Your task to perform on an android device: open app "AliExpress" (install if not already installed) Image 0: 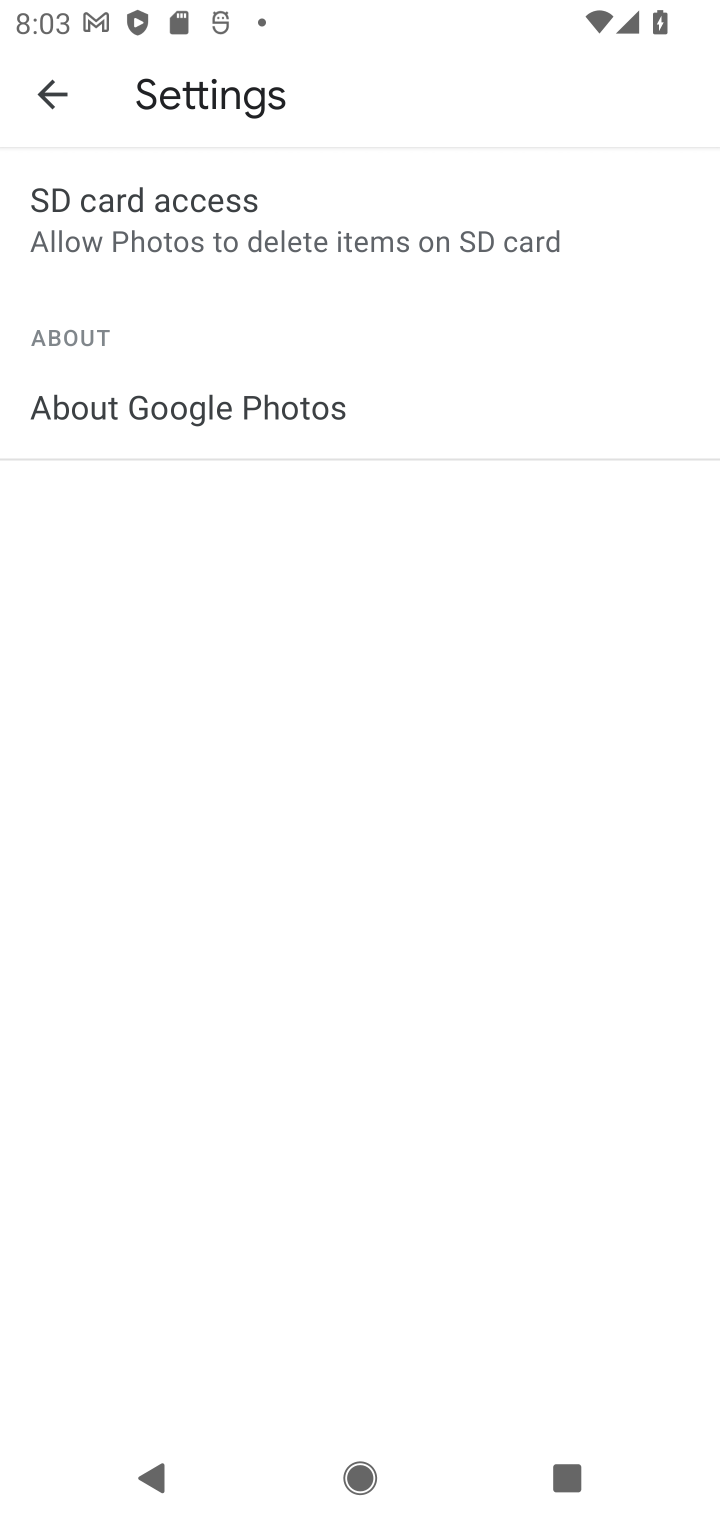
Step 0: press back button
Your task to perform on an android device: open app "AliExpress" (install if not already installed) Image 1: 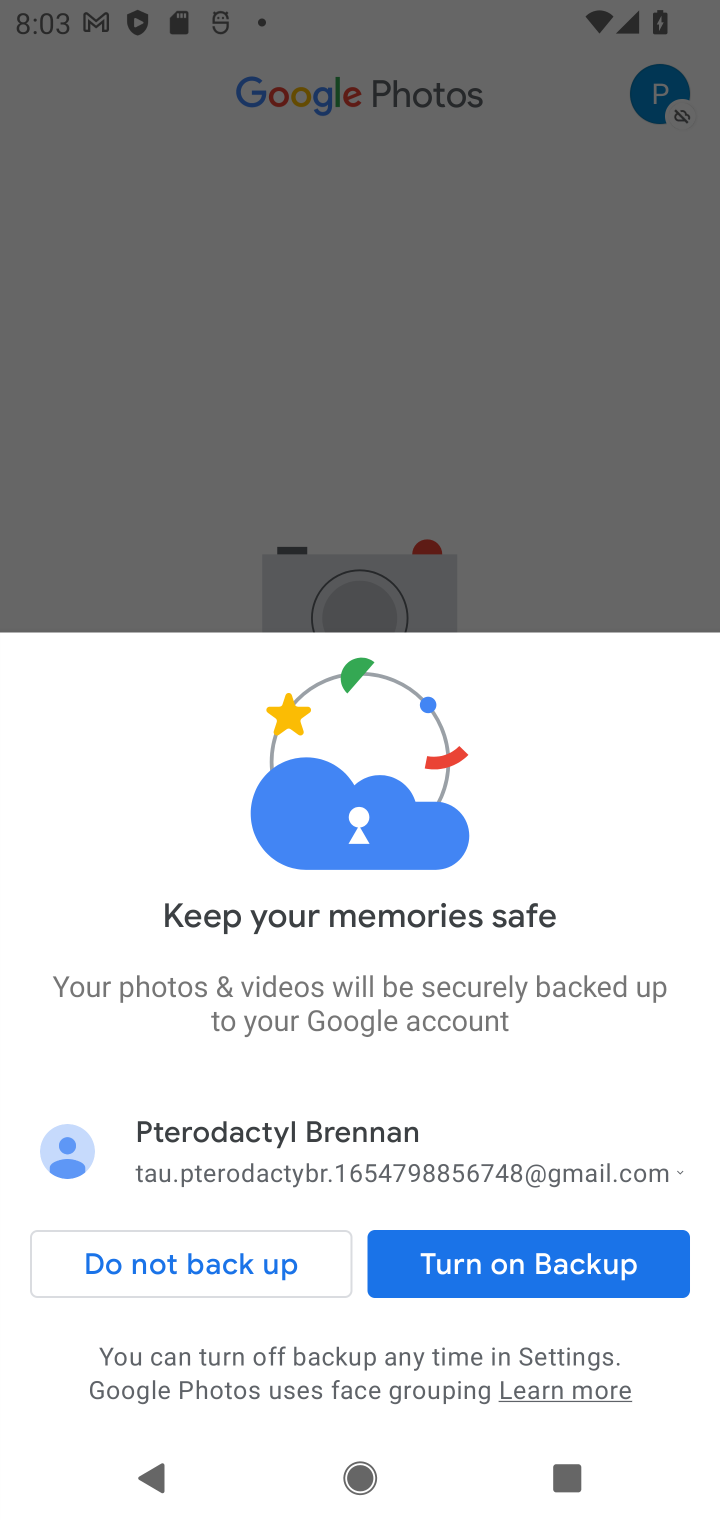
Step 1: press back button
Your task to perform on an android device: open app "AliExpress" (install if not already installed) Image 2: 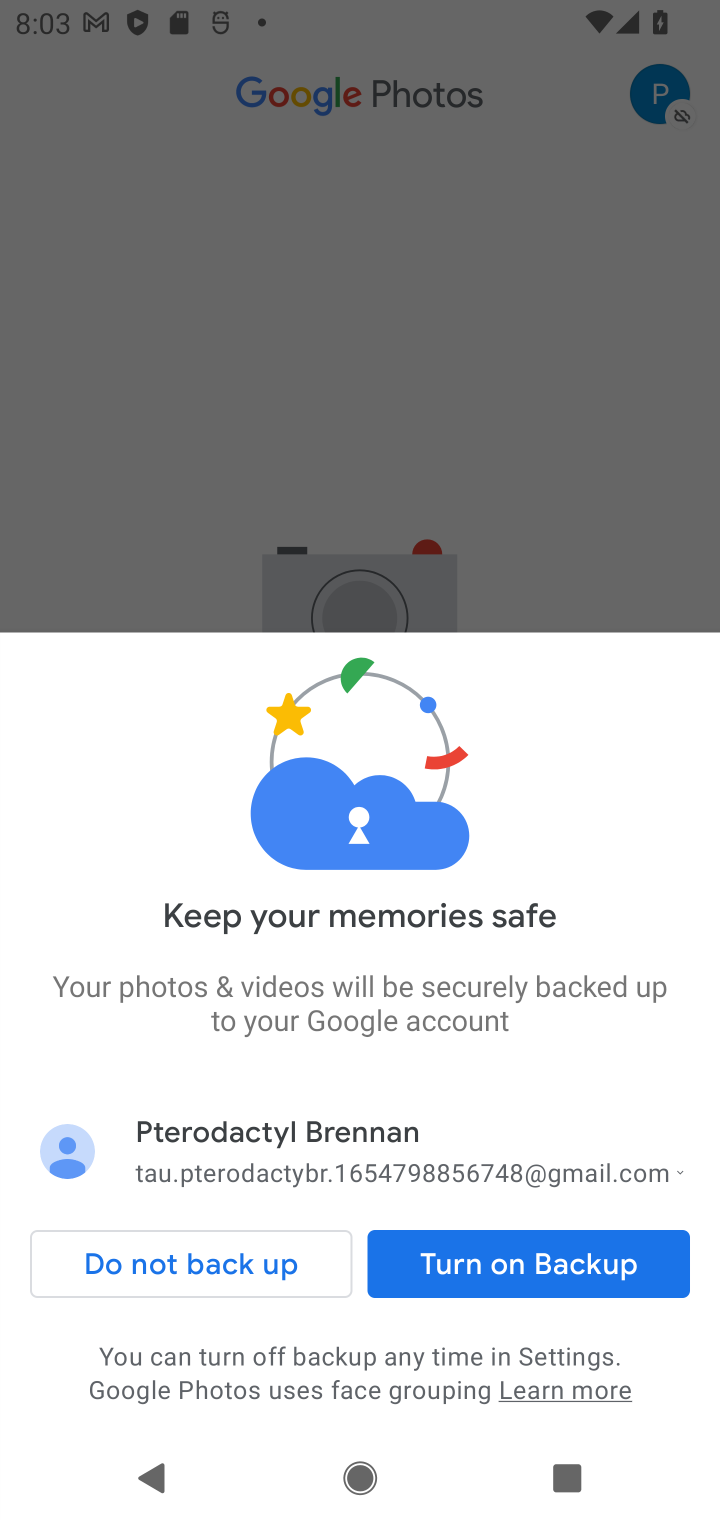
Step 2: press home button
Your task to perform on an android device: open app "AliExpress" (install if not already installed) Image 3: 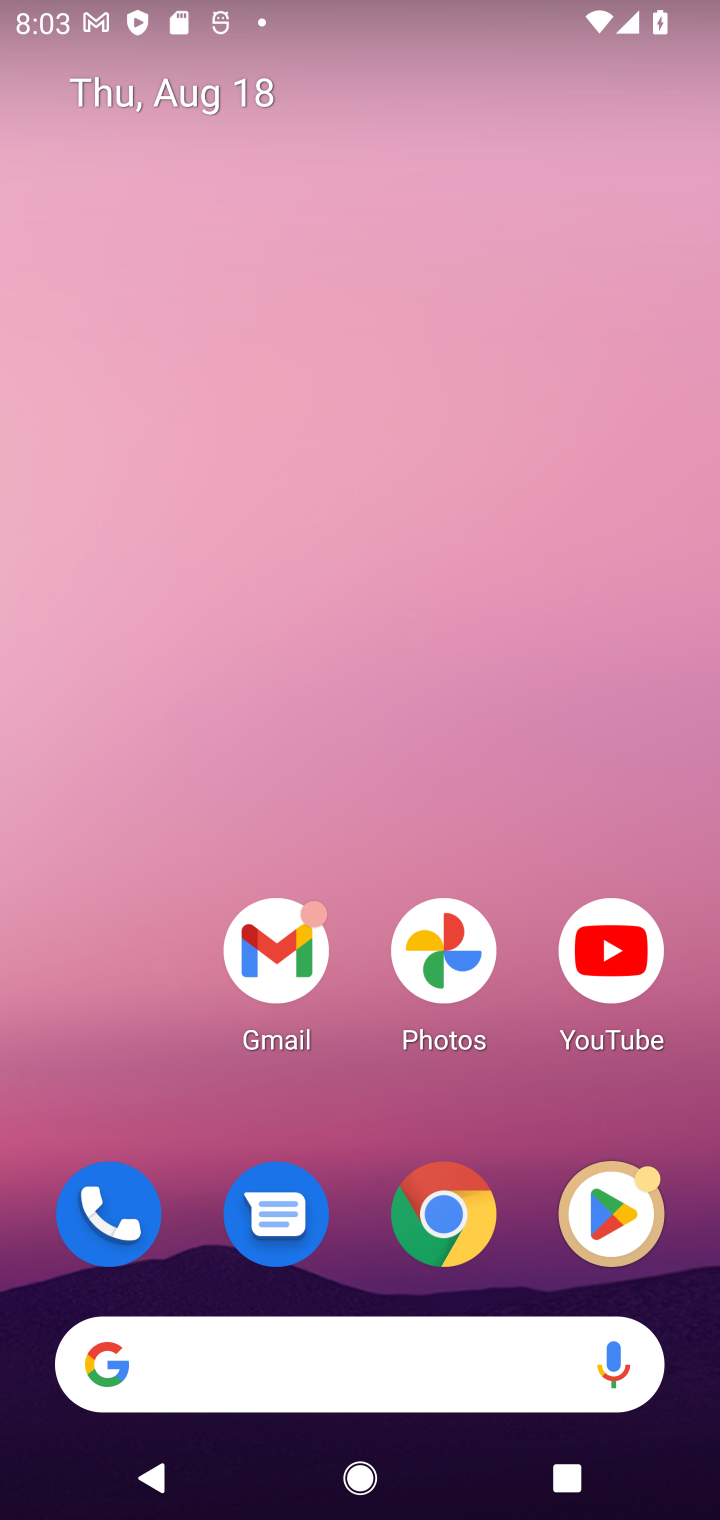
Step 3: click (612, 1210)
Your task to perform on an android device: open app "AliExpress" (install if not already installed) Image 4: 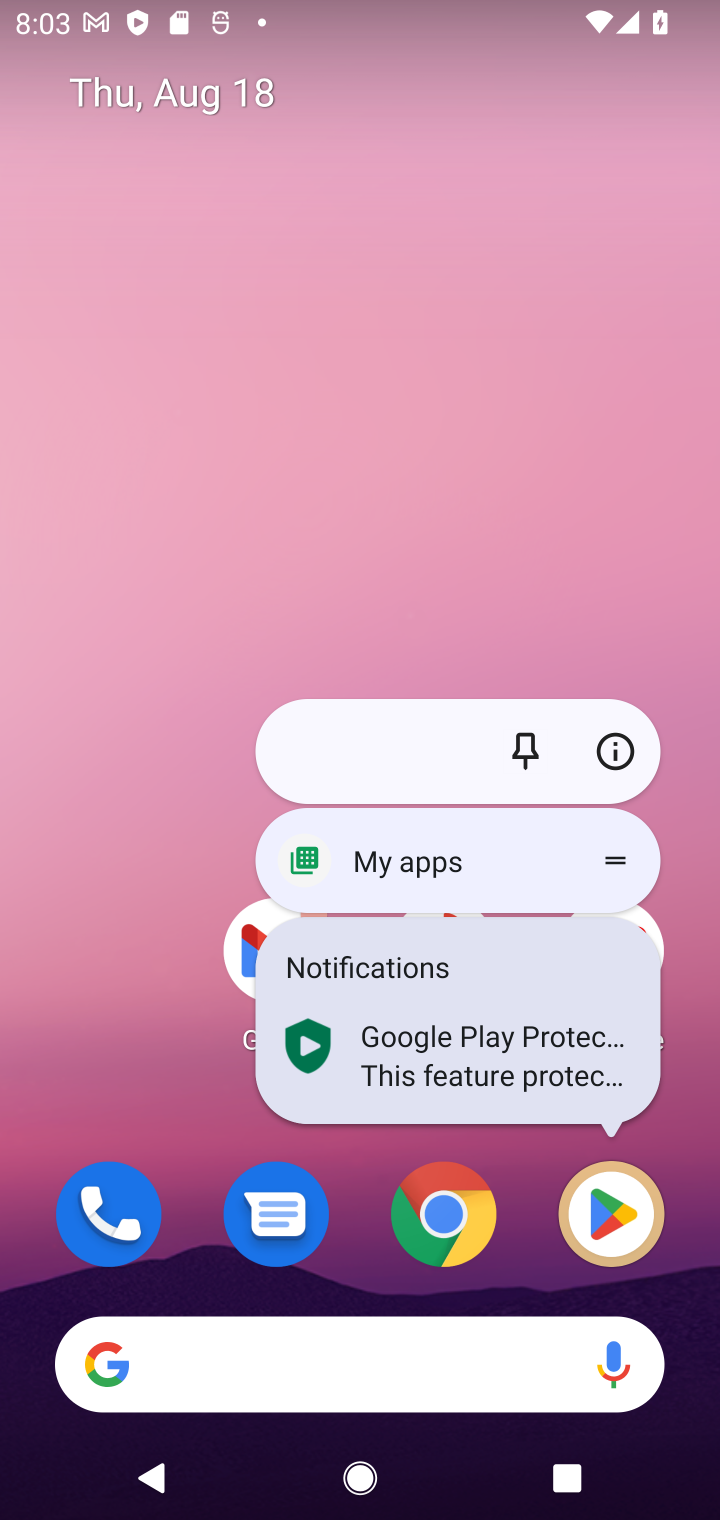
Step 4: click (622, 1204)
Your task to perform on an android device: open app "AliExpress" (install if not already installed) Image 5: 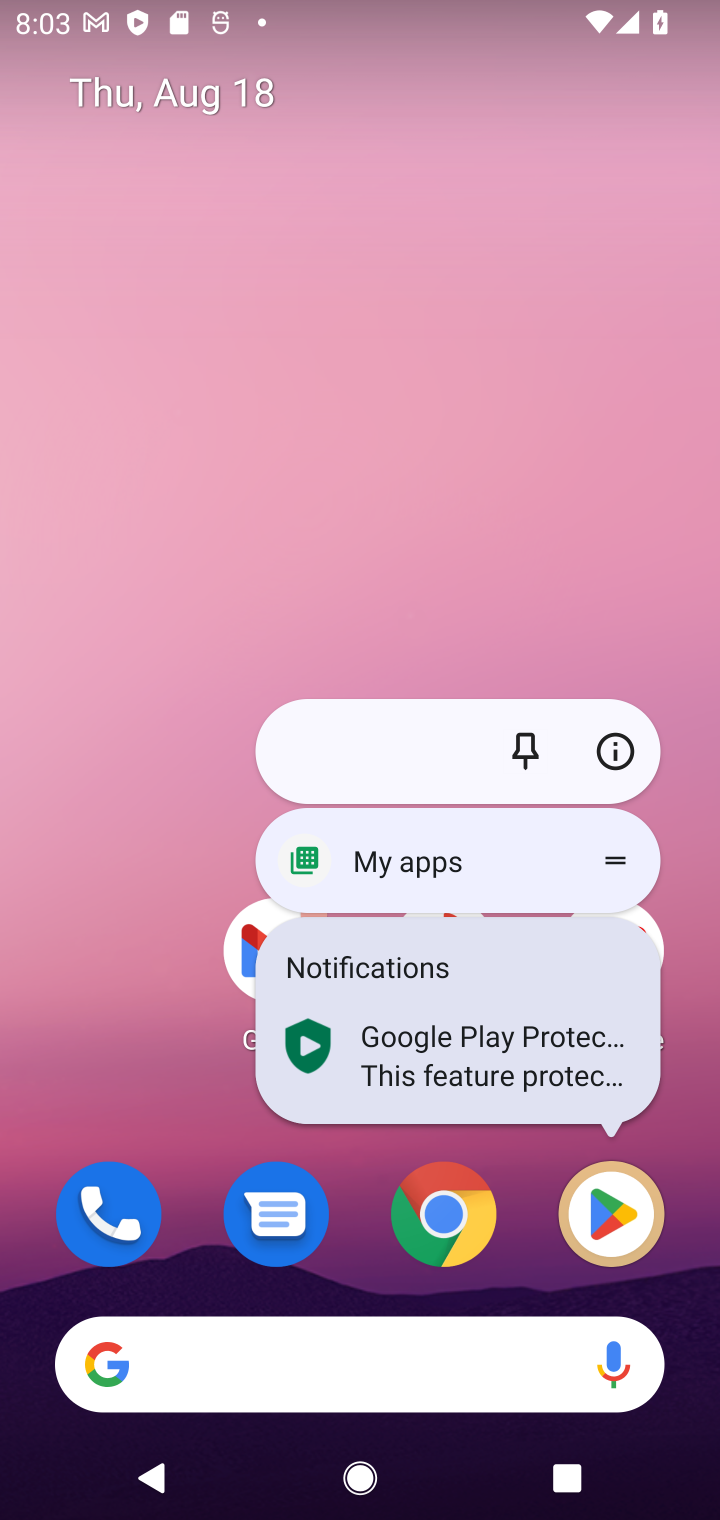
Step 5: click (622, 1202)
Your task to perform on an android device: open app "AliExpress" (install if not already installed) Image 6: 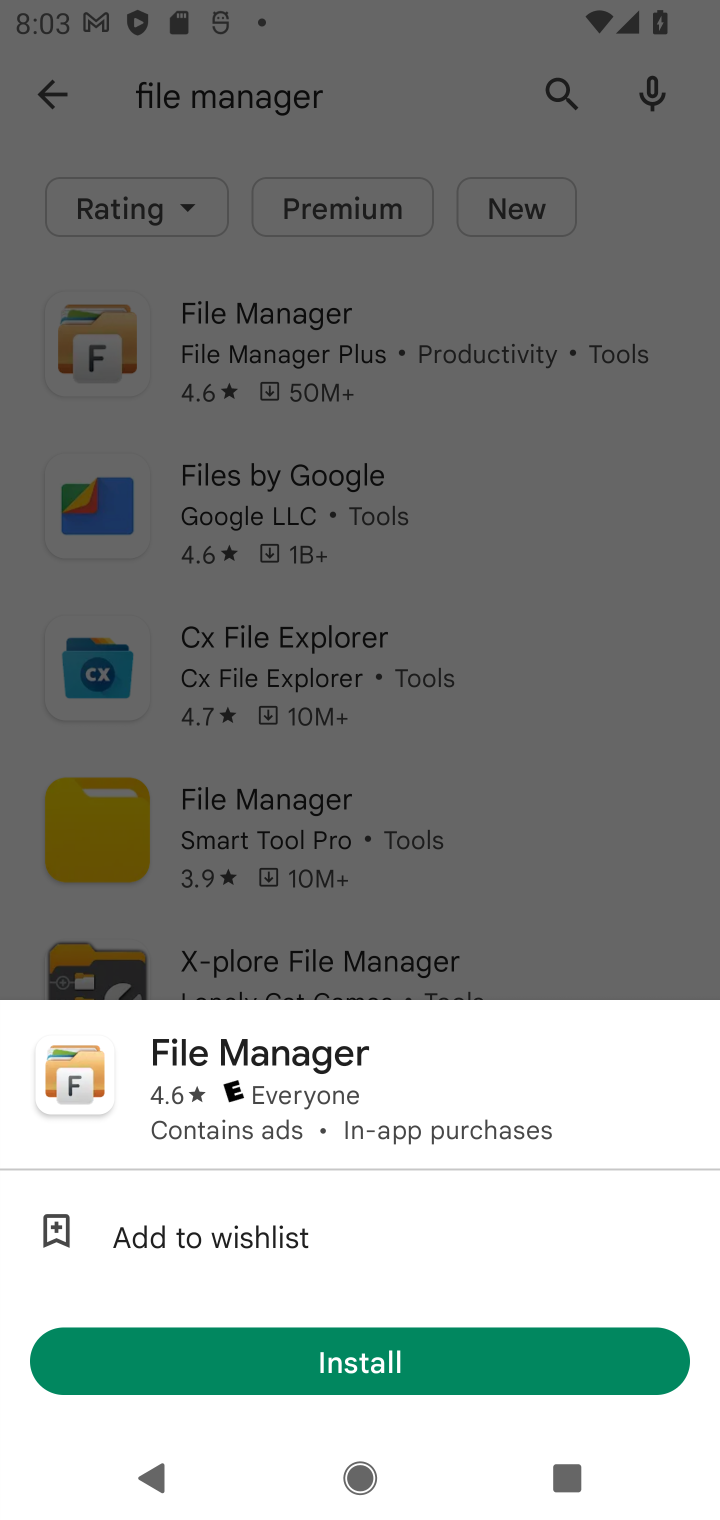
Step 6: click (490, 830)
Your task to perform on an android device: open app "AliExpress" (install if not already installed) Image 7: 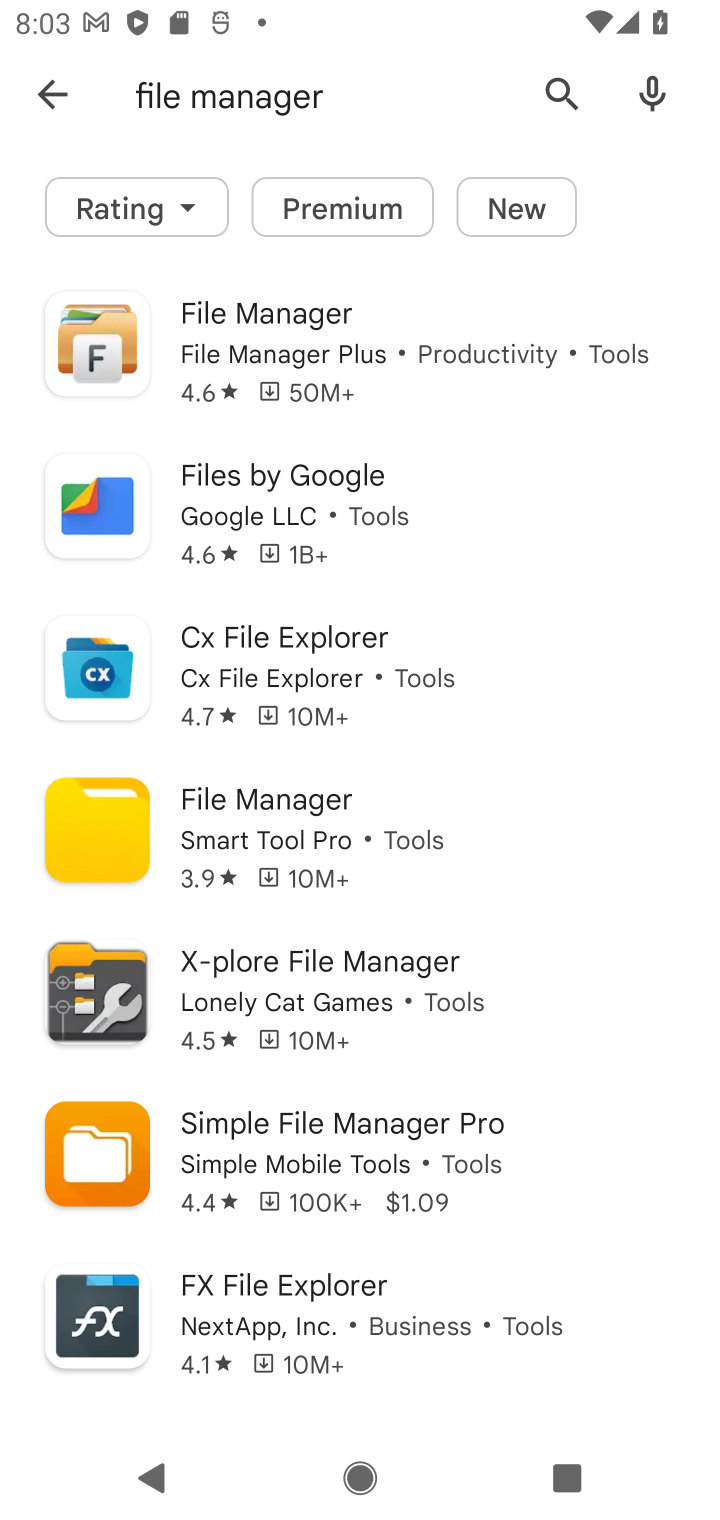
Step 7: click (556, 103)
Your task to perform on an android device: open app "AliExpress" (install if not already installed) Image 8: 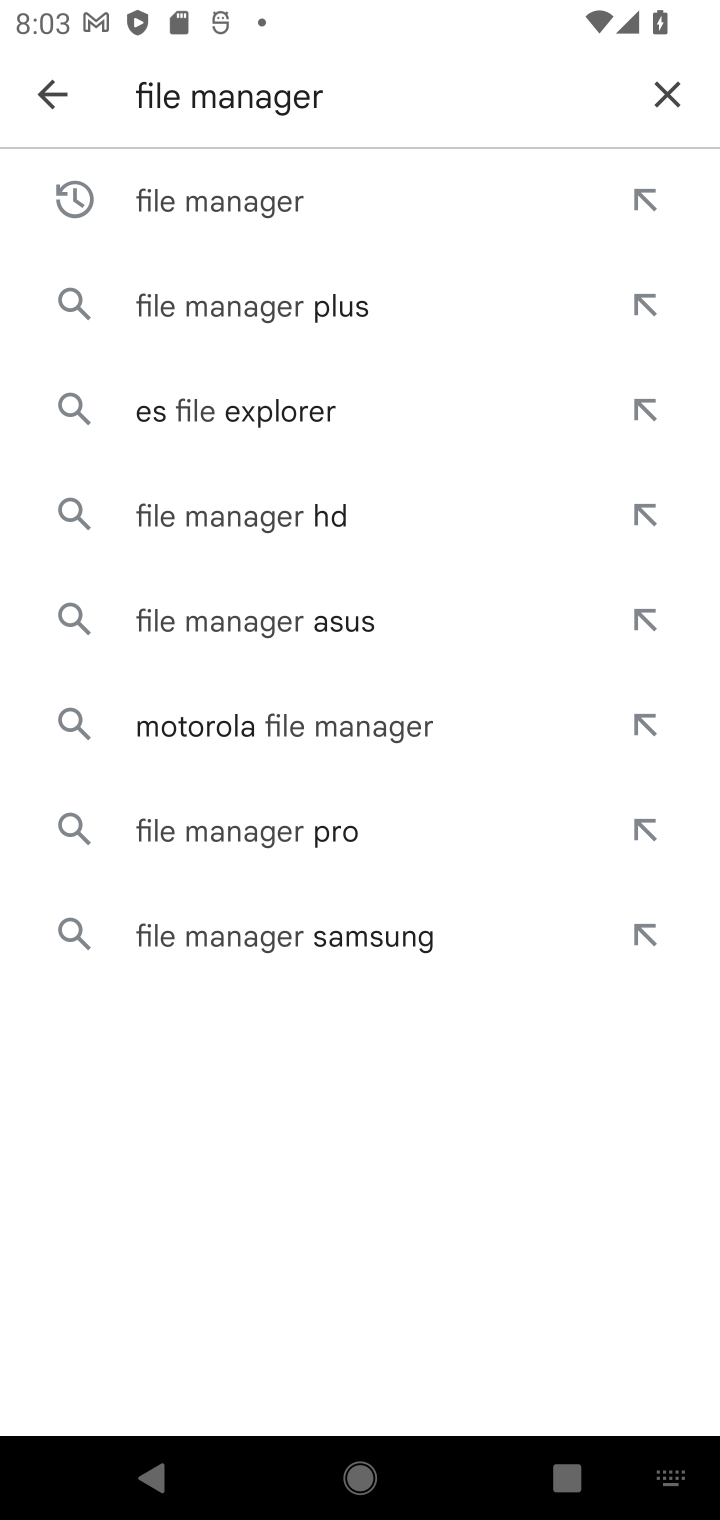
Step 8: click (685, 96)
Your task to perform on an android device: open app "AliExpress" (install if not already installed) Image 9: 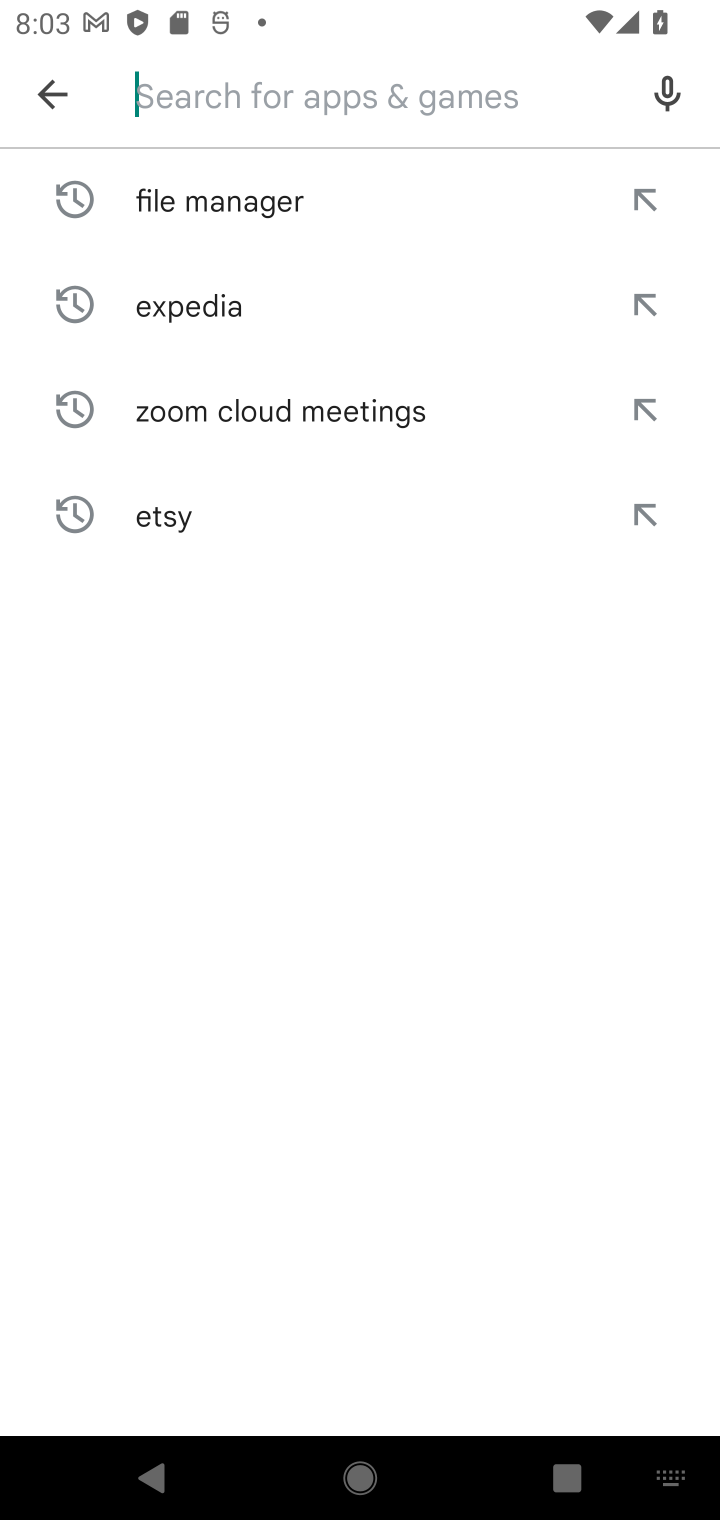
Step 9: click (285, 110)
Your task to perform on an android device: open app "AliExpress" (install if not already installed) Image 10: 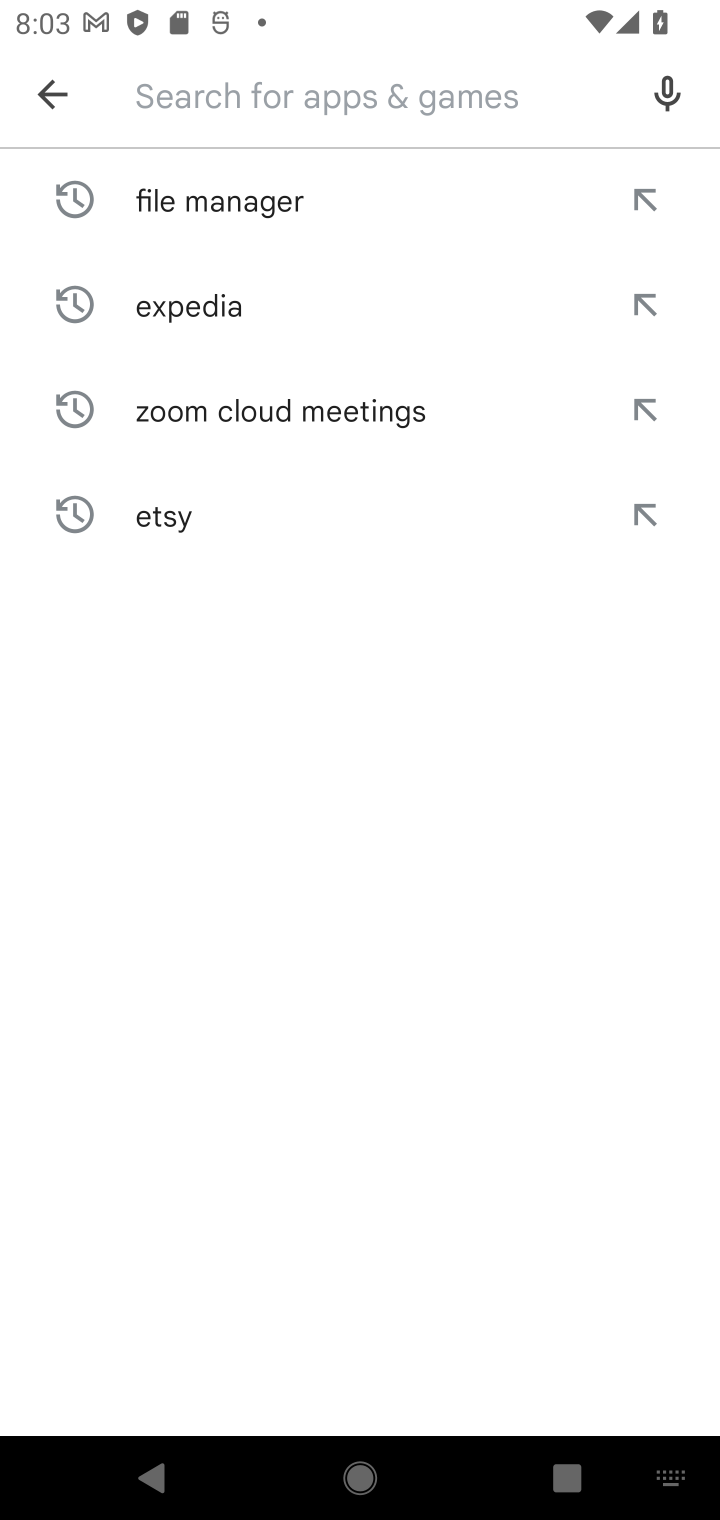
Step 10: type "aliexpress"
Your task to perform on an android device: open app "AliExpress" (install if not already installed) Image 11: 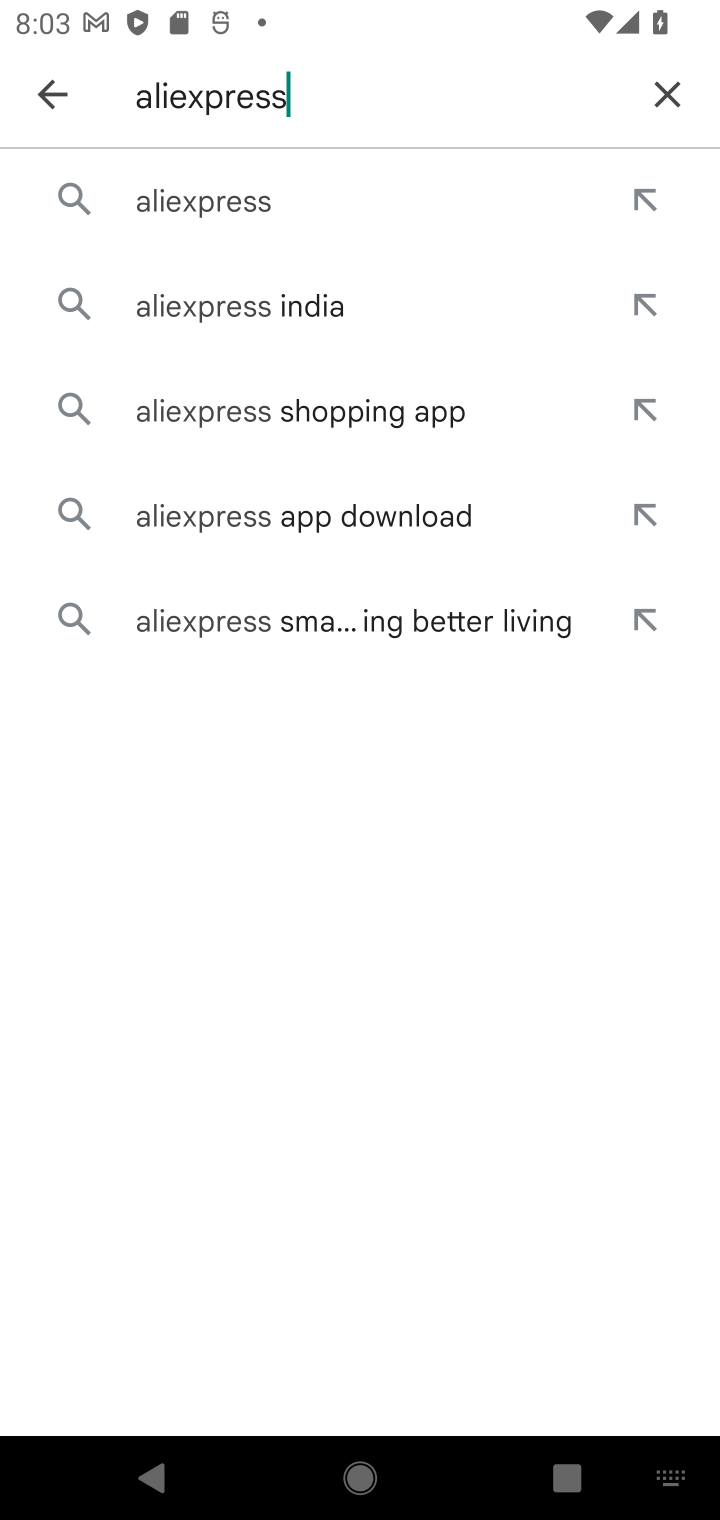
Step 11: click (205, 187)
Your task to perform on an android device: open app "AliExpress" (install if not already installed) Image 12: 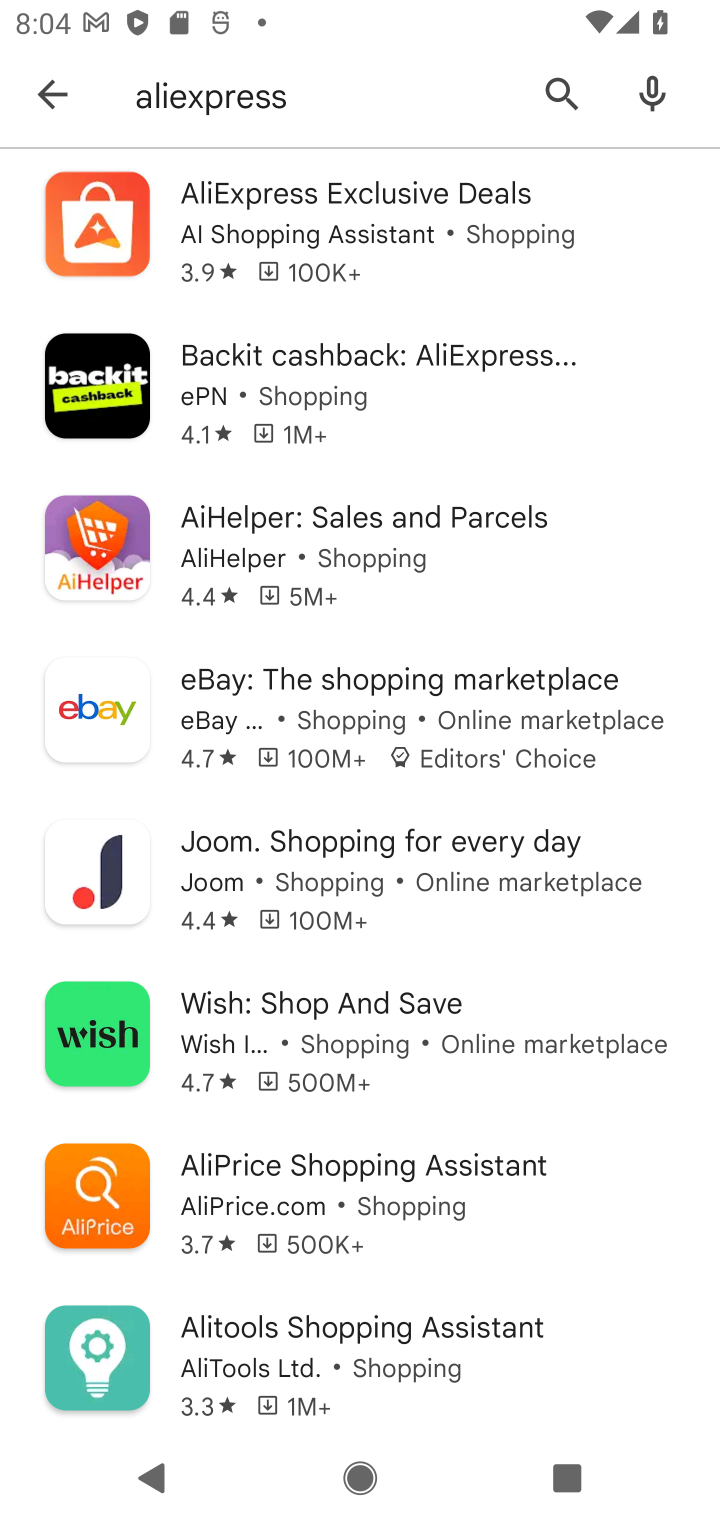
Step 12: click (335, 252)
Your task to perform on an android device: open app "AliExpress" (install if not already installed) Image 13: 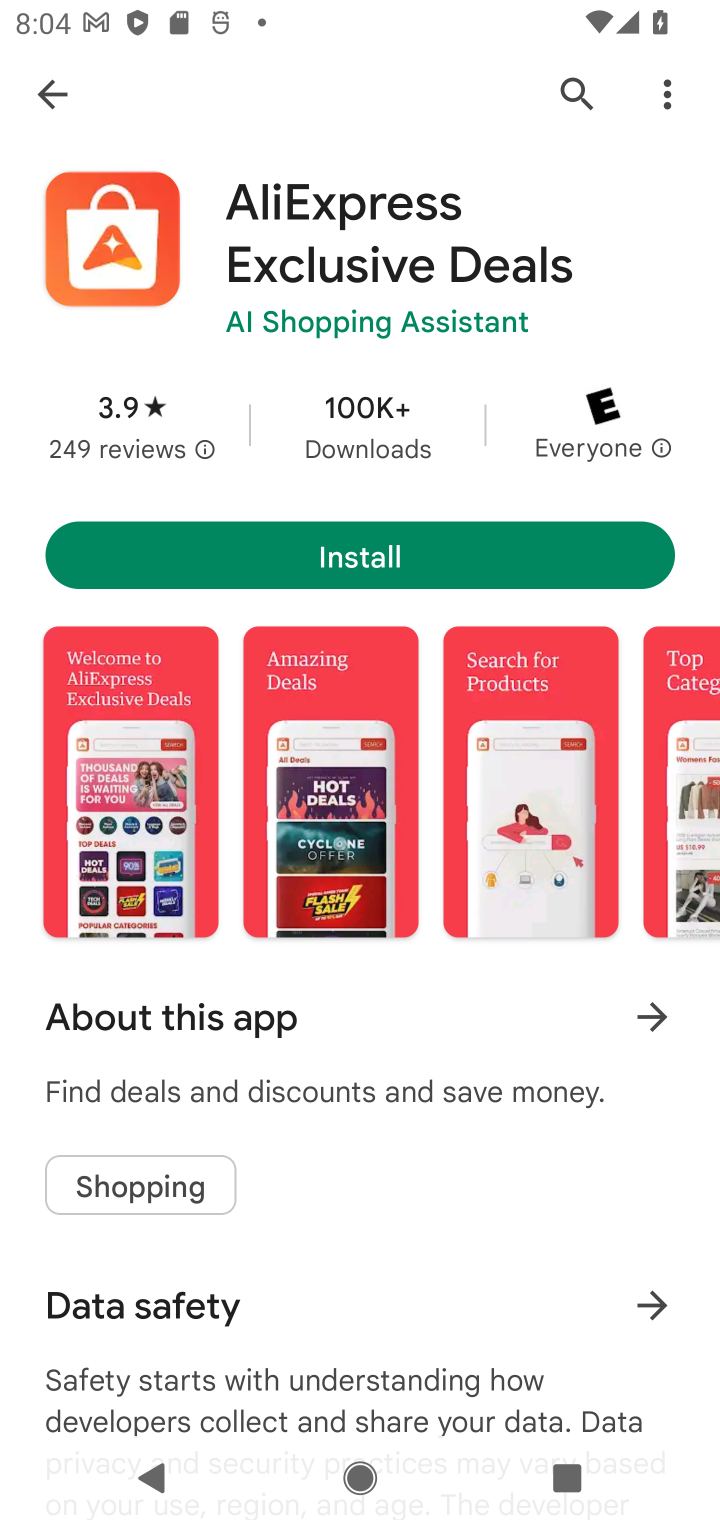
Step 13: click (394, 556)
Your task to perform on an android device: open app "AliExpress" (install if not already installed) Image 14: 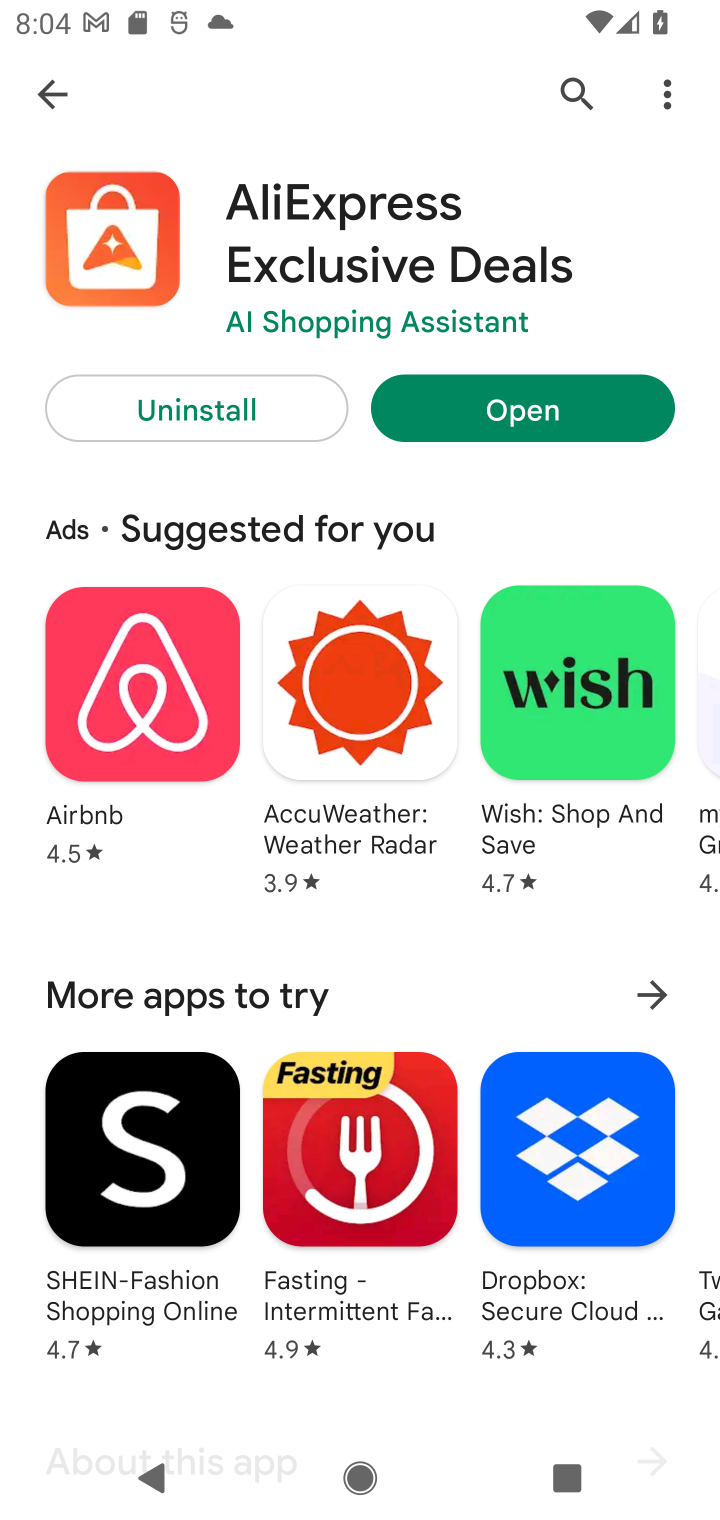
Step 14: click (524, 416)
Your task to perform on an android device: open app "AliExpress" (install if not already installed) Image 15: 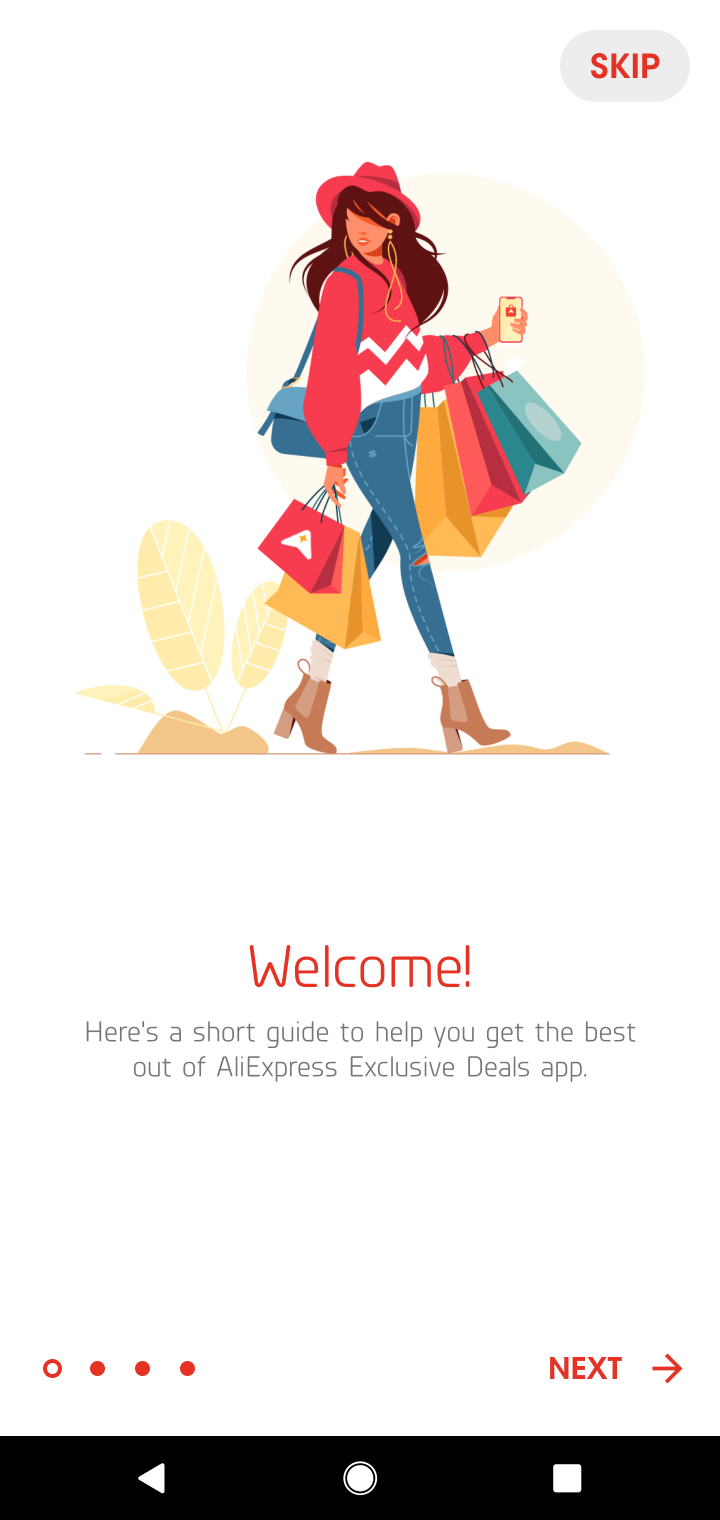
Step 15: task complete